Your task to perform on an android device: Is it going to rain today? Image 0: 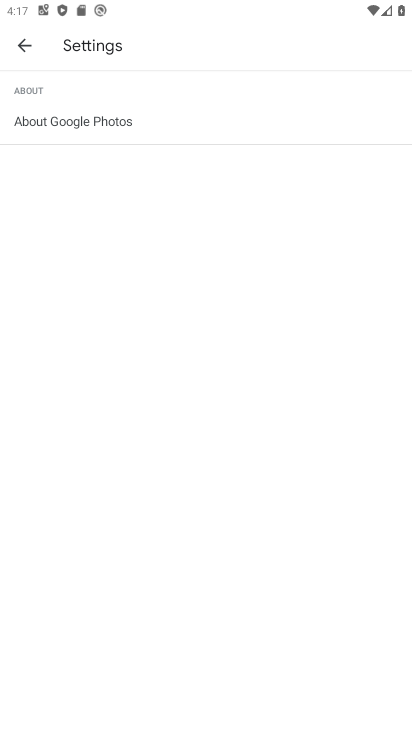
Step 0: press back button
Your task to perform on an android device: Is it going to rain today? Image 1: 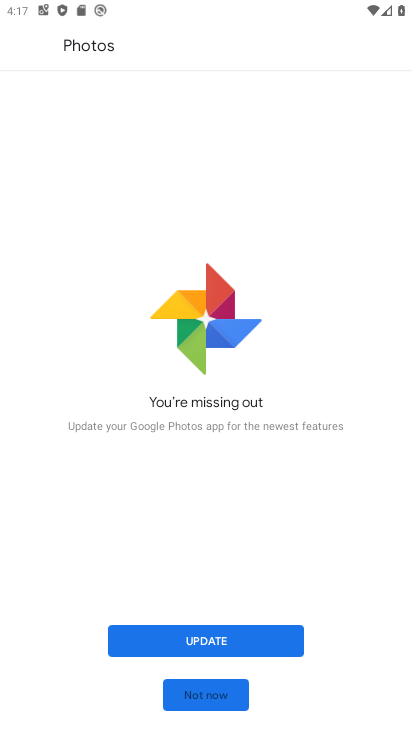
Step 1: press back button
Your task to perform on an android device: Is it going to rain today? Image 2: 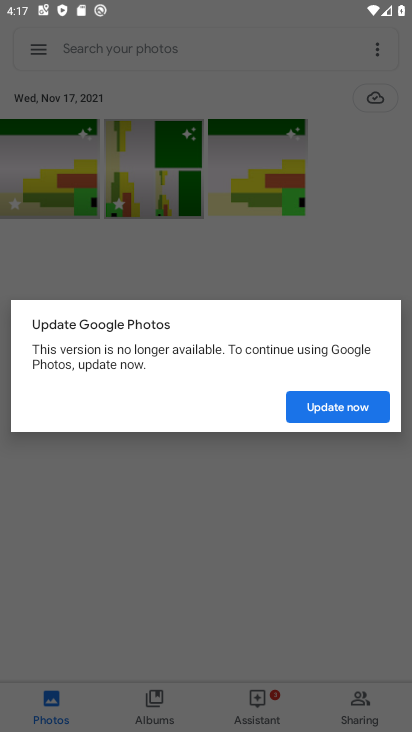
Step 2: press home button
Your task to perform on an android device: Is it going to rain today? Image 3: 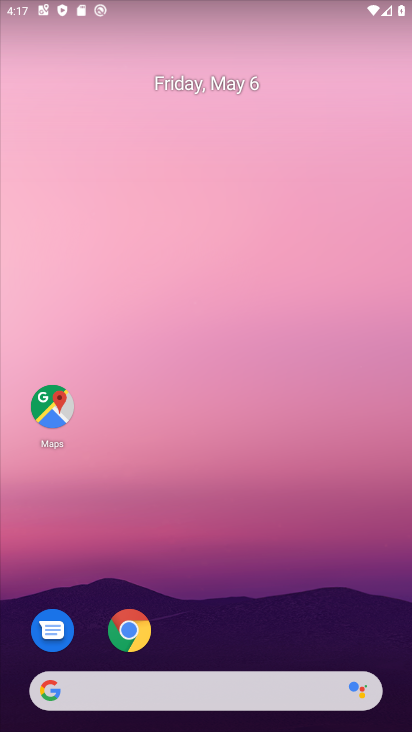
Step 3: click (163, 691)
Your task to perform on an android device: Is it going to rain today? Image 4: 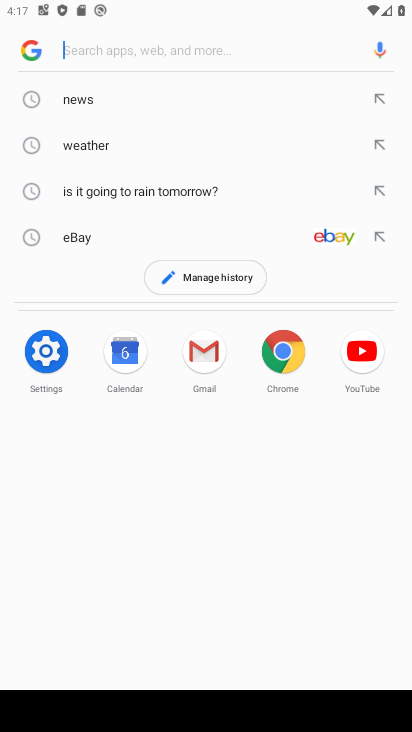
Step 4: click (89, 146)
Your task to perform on an android device: Is it going to rain today? Image 5: 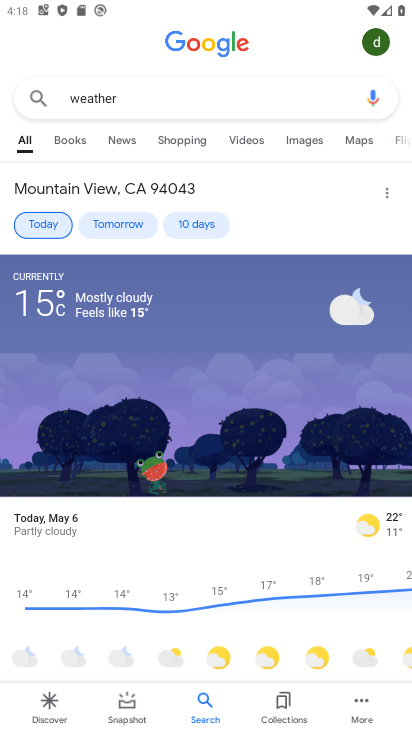
Step 5: task complete